Your task to perform on an android device: Open Google Chrome and open the bookmarks view Image 0: 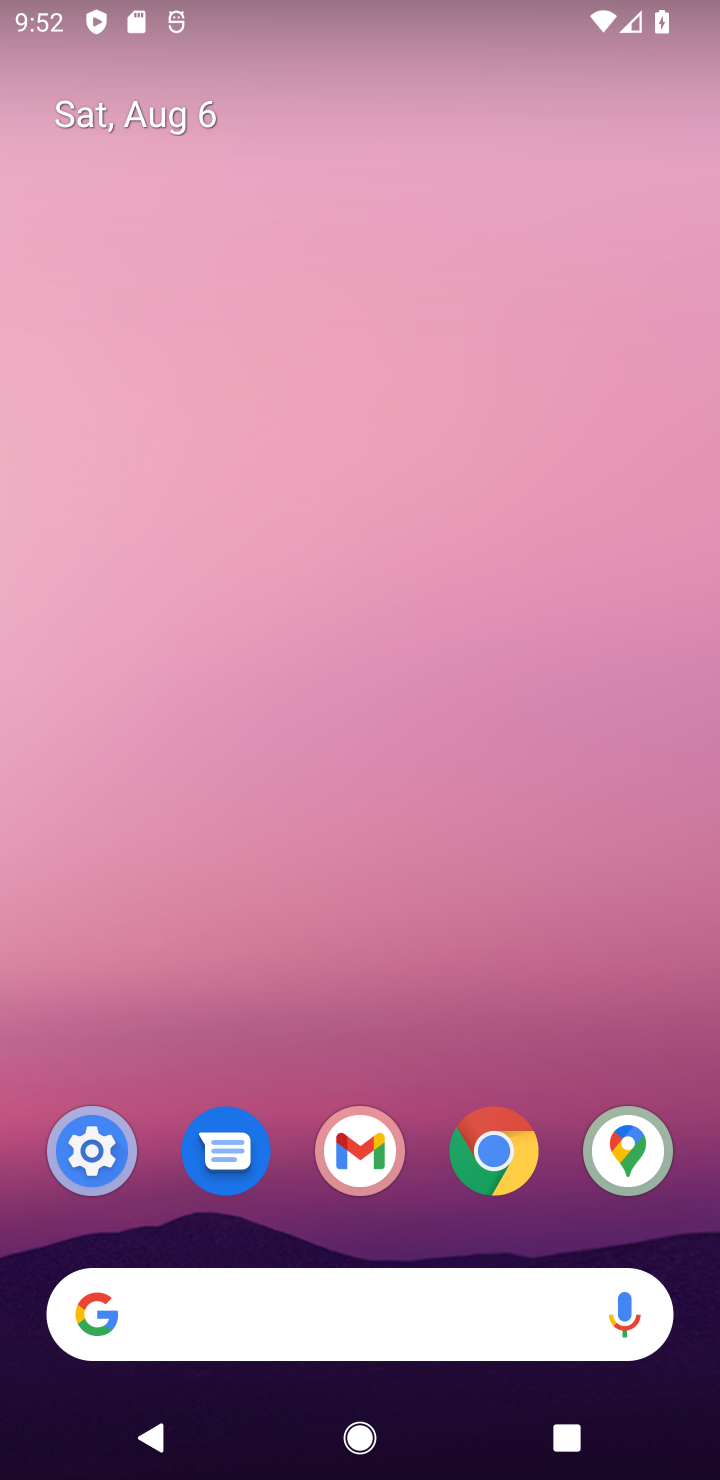
Step 0: click (508, 1172)
Your task to perform on an android device: Open Google Chrome and open the bookmarks view Image 1: 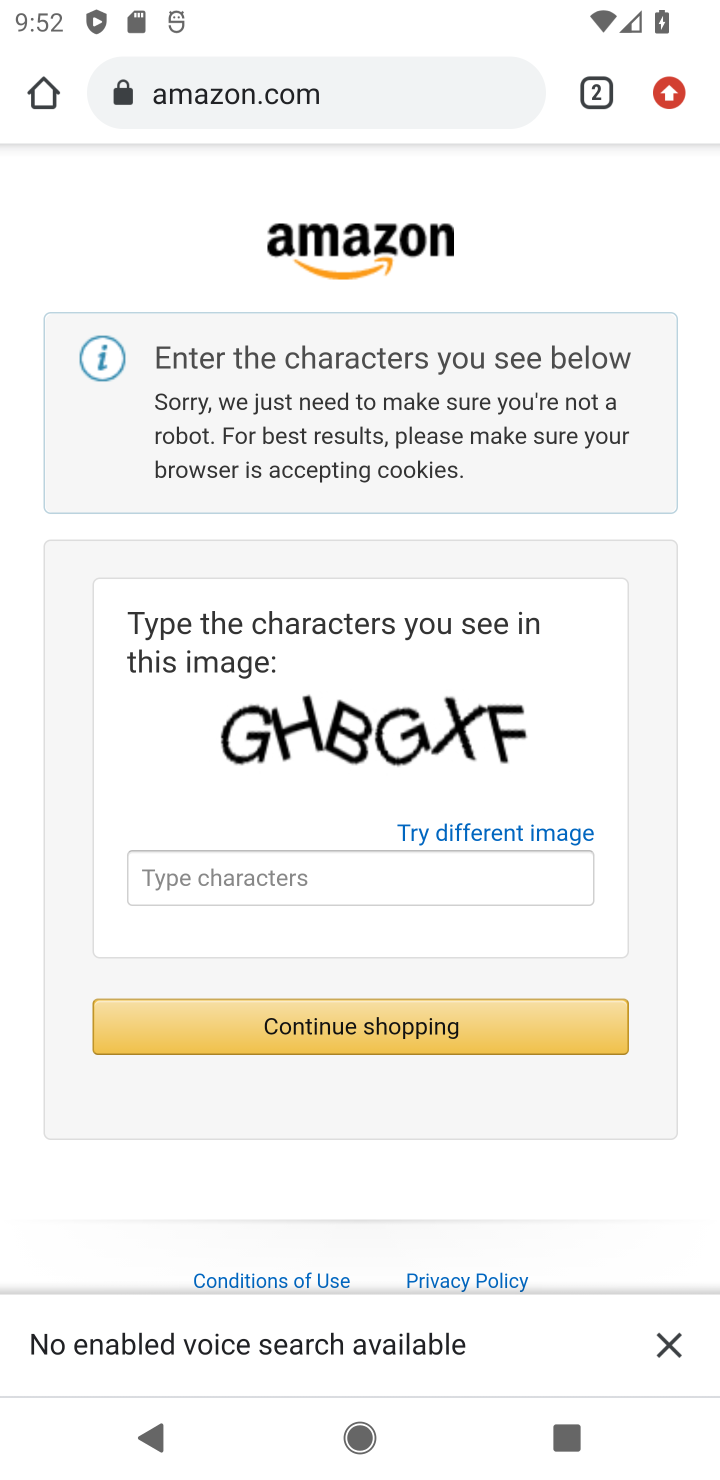
Step 1: click (593, 91)
Your task to perform on an android device: Open Google Chrome and open the bookmarks view Image 2: 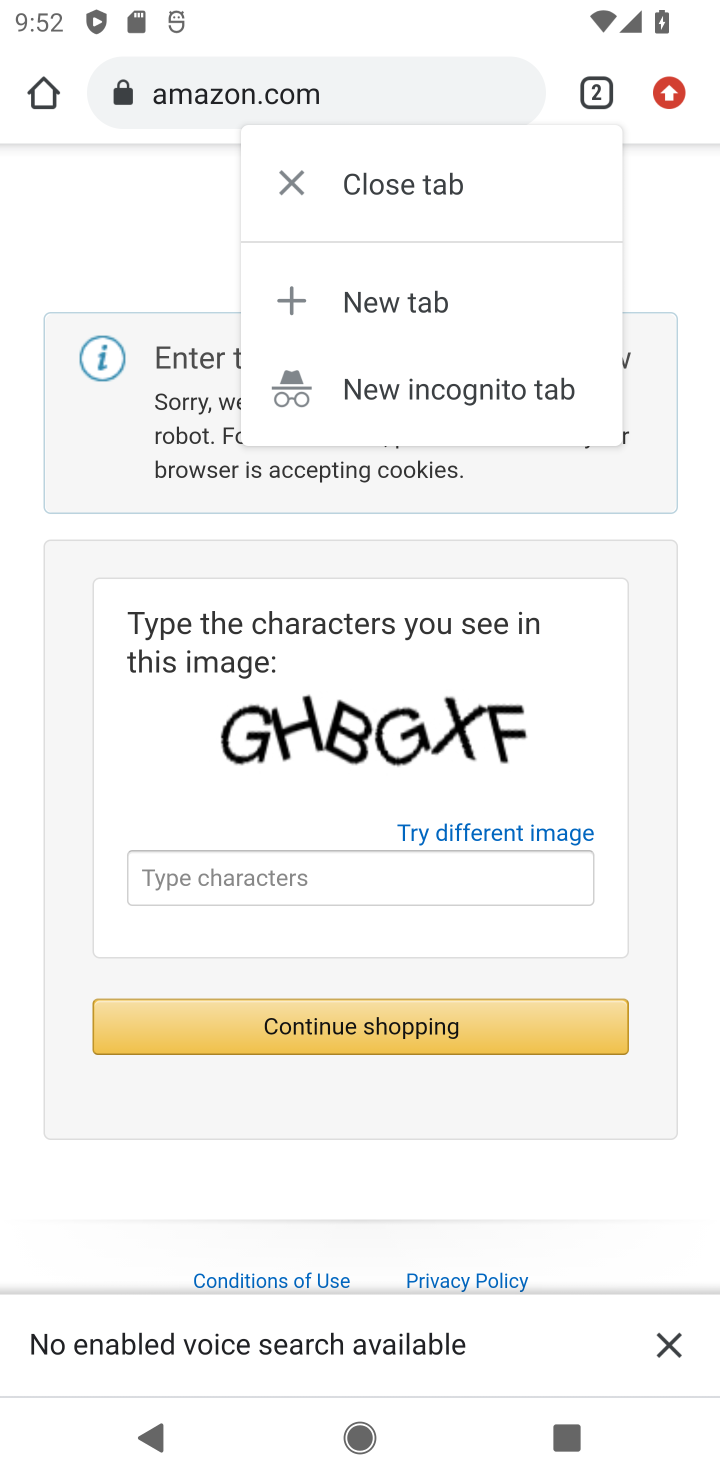
Step 2: click (394, 298)
Your task to perform on an android device: Open Google Chrome and open the bookmarks view Image 3: 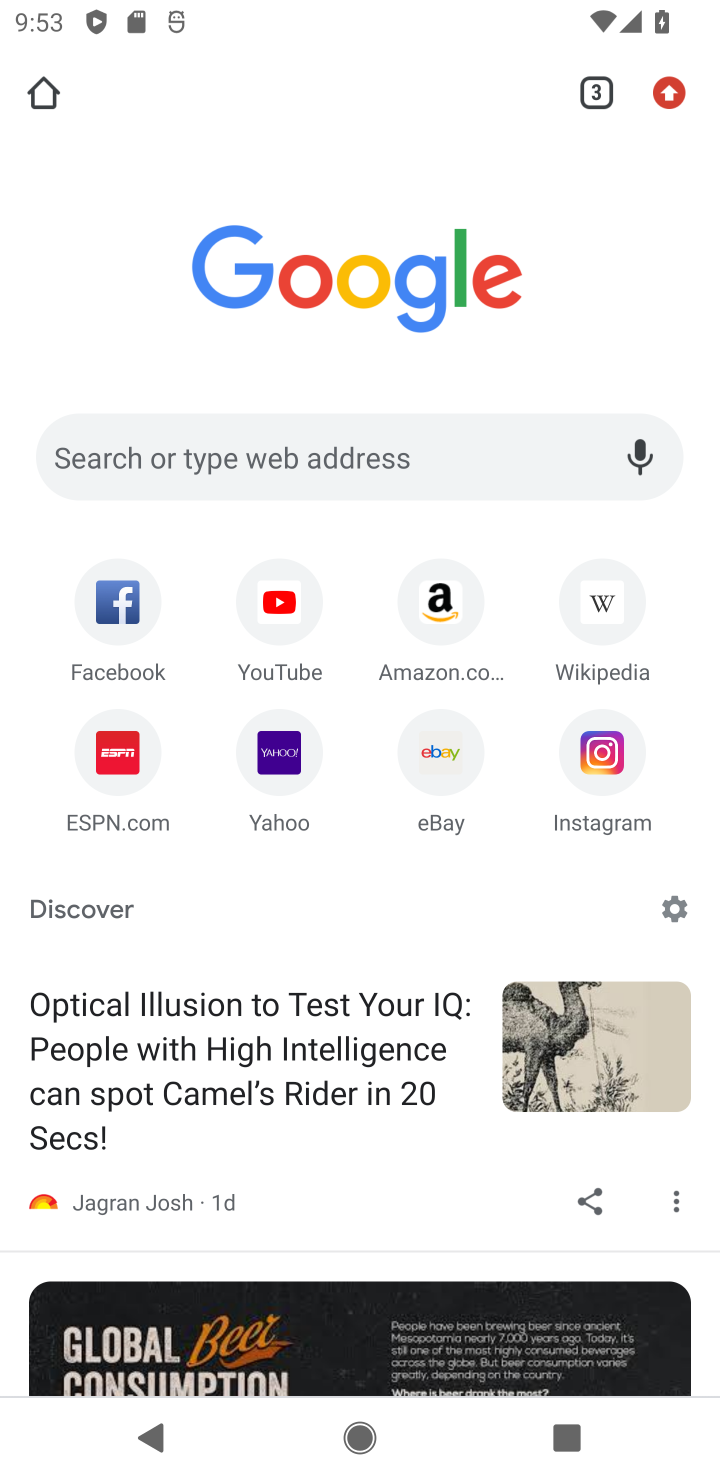
Step 3: click (654, 92)
Your task to perform on an android device: Open Google Chrome and open the bookmarks view Image 4: 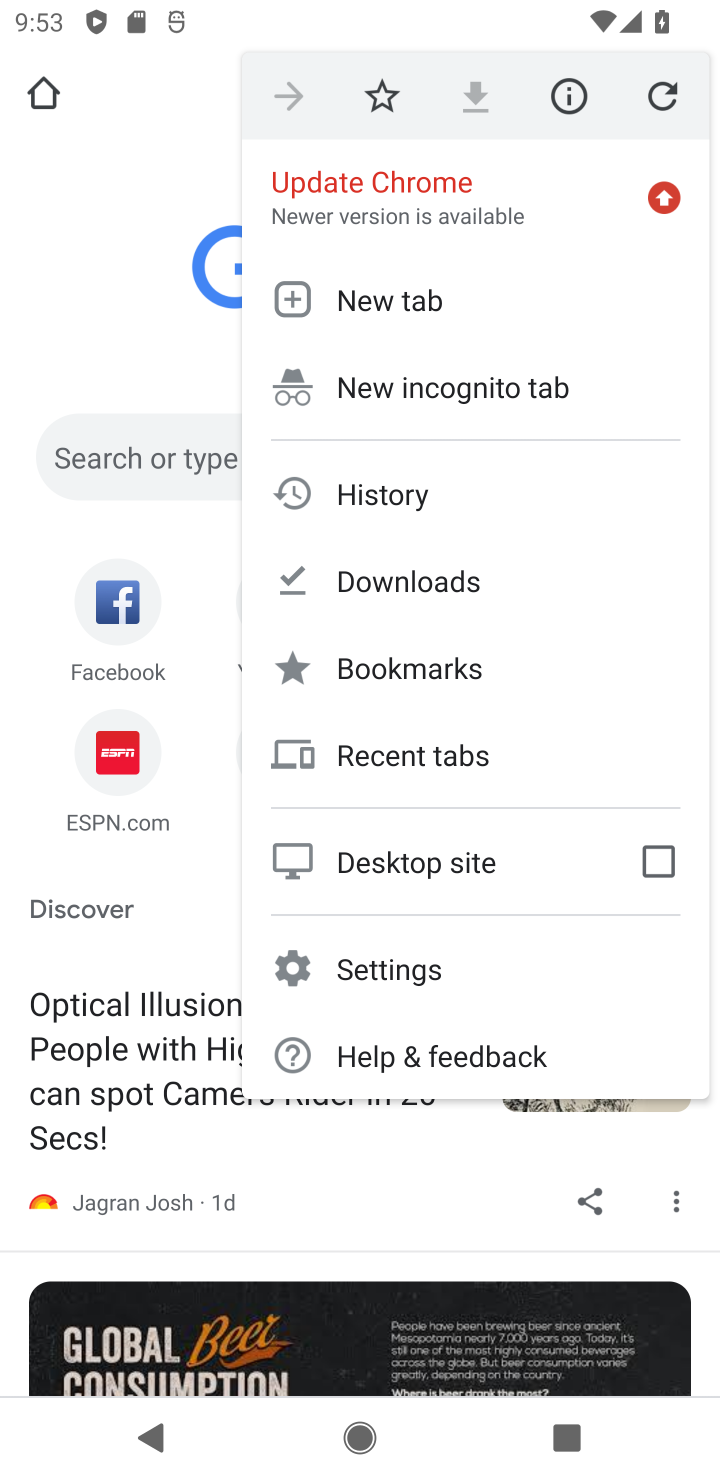
Step 4: click (370, 99)
Your task to perform on an android device: Open Google Chrome and open the bookmarks view Image 5: 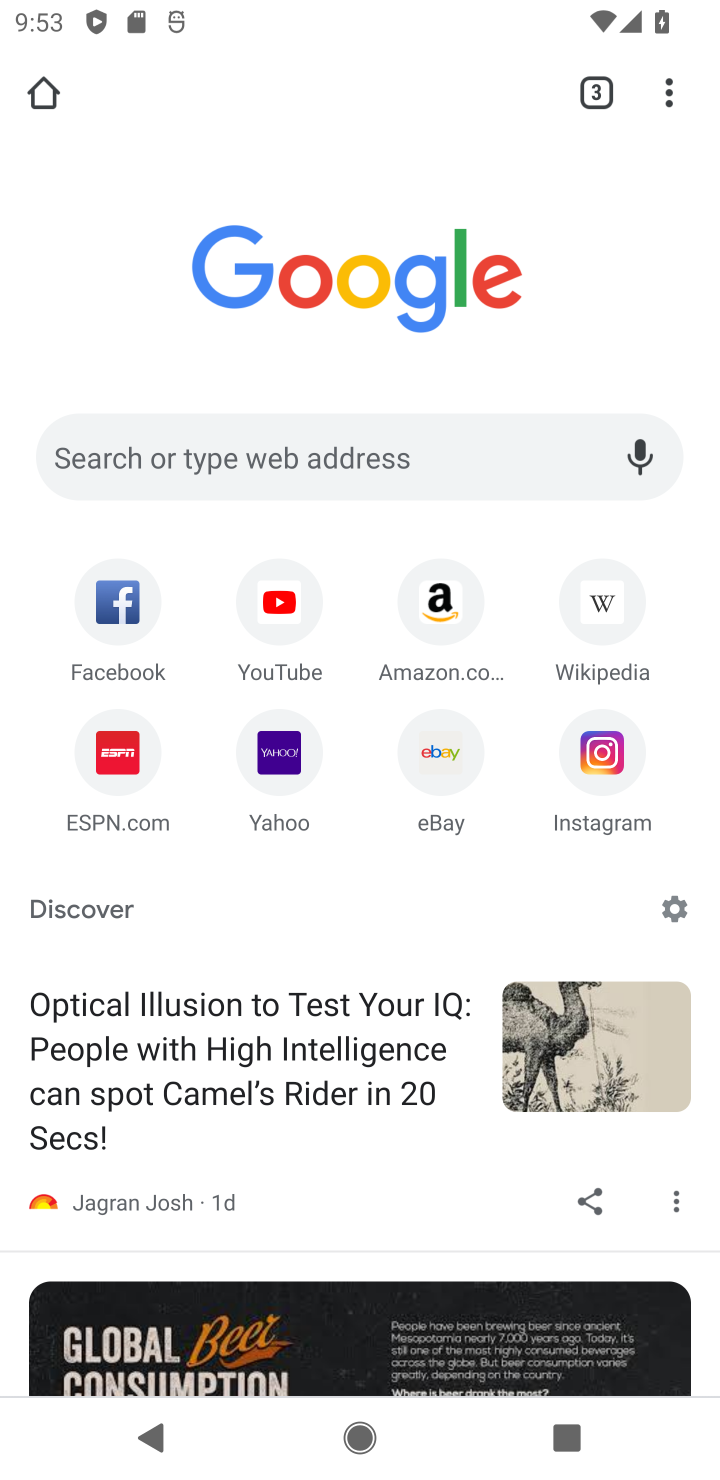
Step 5: task complete